Your task to perform on an android device: Open the calendar app, open the side menu, and click the "Day" option Image 0: 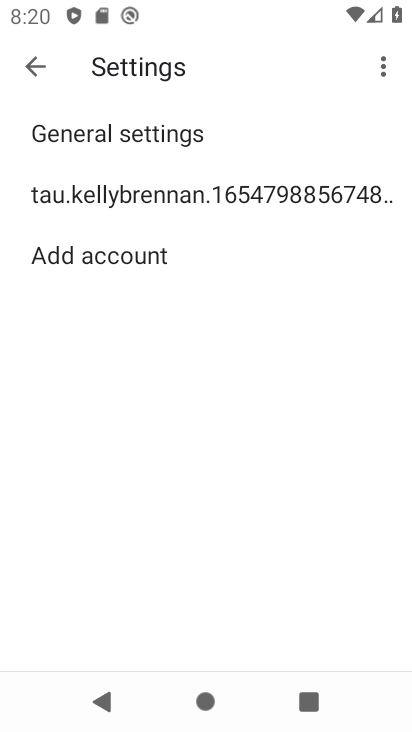
Step 0: press home button
Your task to perform on an android device: Open the calendar app, open the side menu, and click the "Day" option Image 1: 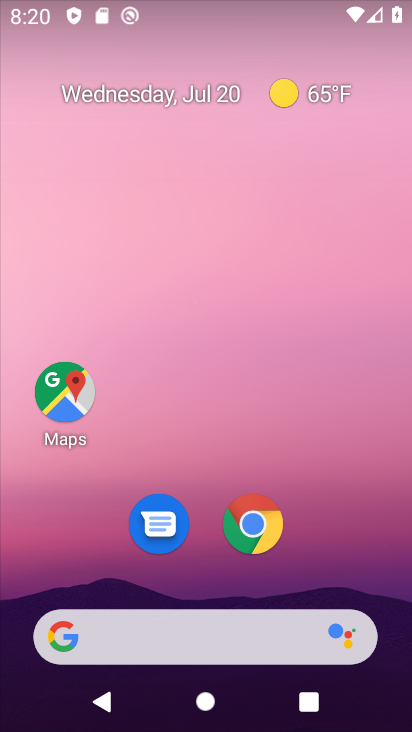
Step 1: drag from (313, 559) to (348, 41)
Your task to perform on an android device: Open the calendar app, open the side menu, and click the "Day" option Image 2: 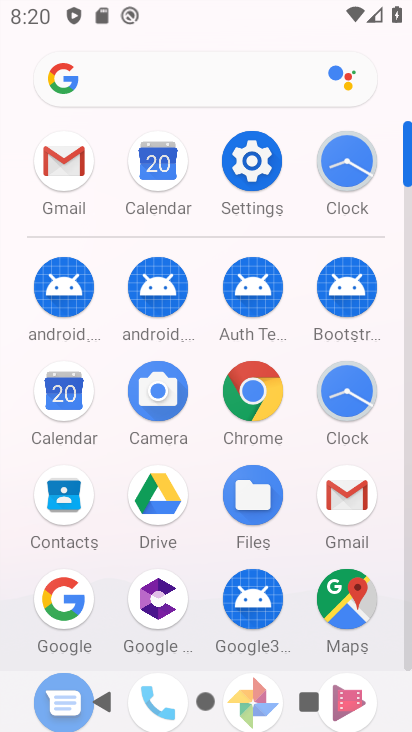
Step 2: click (156, 155)
Your task to perform on an android device: Open the calendar app, open the side menu, and click the "Day" option Image 3: 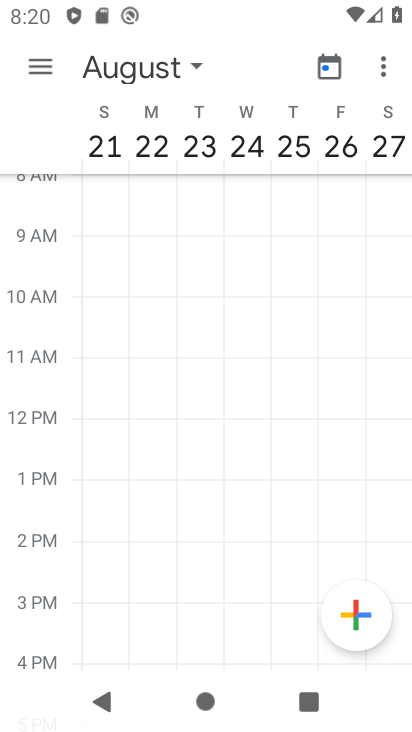
Step 3: click (37, 66)
Your task to perform on an android device: Open the calendar app, open the side menu, and click the "Day" option Image 4: 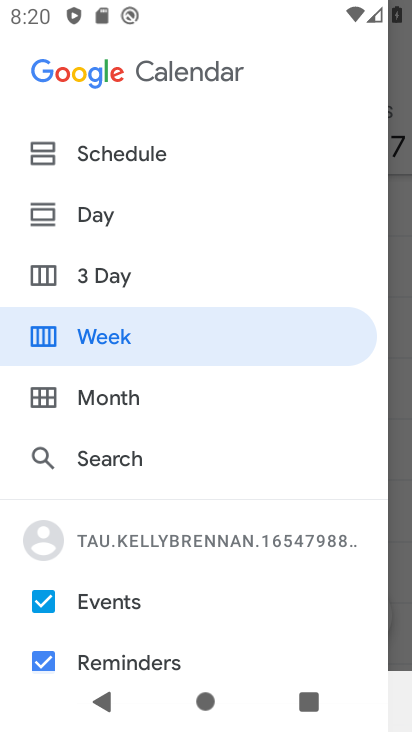
Step 4: click (43, 210)
Your task to perform on an android device: Open the calendar app, open the side menu, and click the "Day" option Image 5: 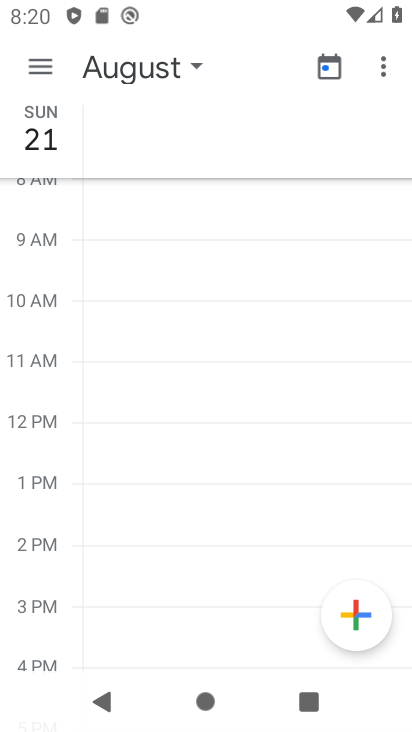
Step 5: task complete